Your task to perform on an android device: stop showing notifications on the lock screen Image 0: 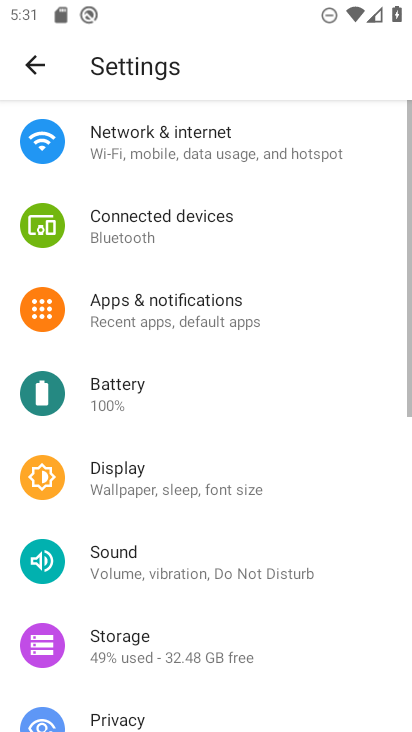
Step 0: press home button
Your task to perform on an android device: stop showing notifications on the lock screen Image 1: 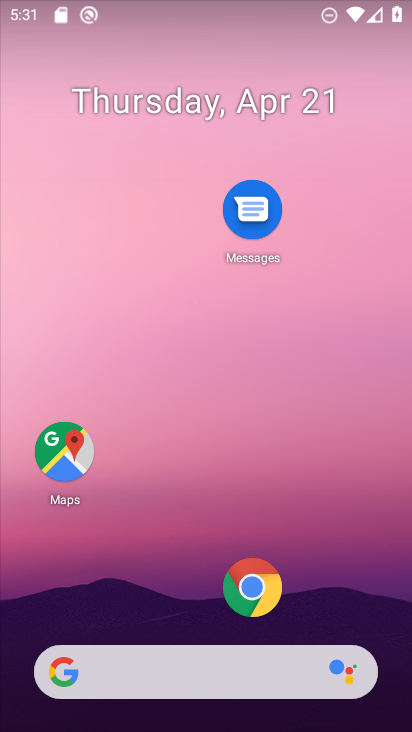
Step 1: drag from (201, 616) to (180, 222)
Your task to perform on an android device: stop showing notifications on the lock screen Image 2: 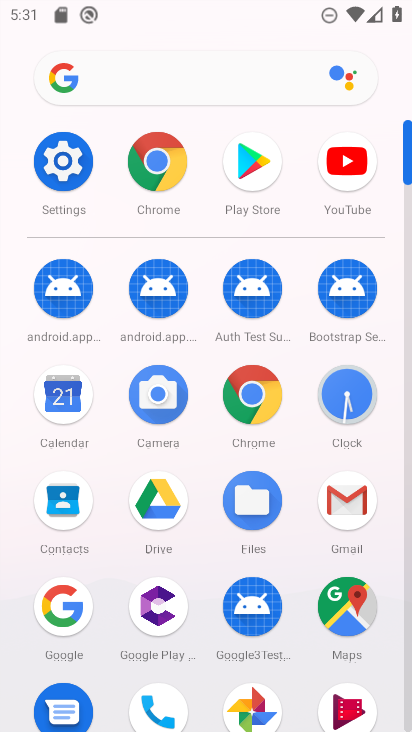
Step 2: click (56, 161)
Your task to perform on an android device: stop showing notifications on the lock screen Image 3: 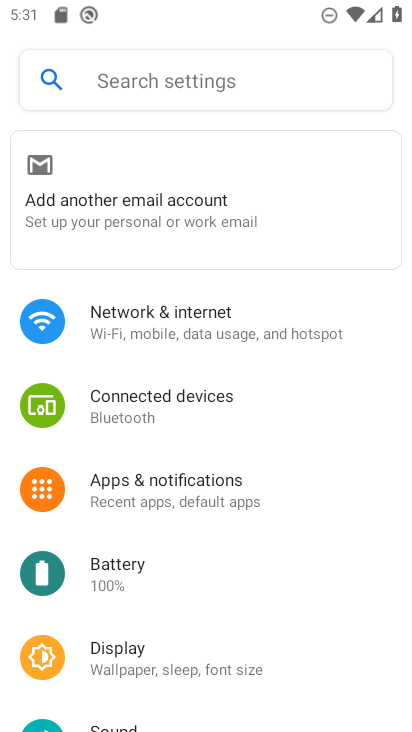
Step 3: click (132, 483)
Your task to perform on an android device: stop showing notifications on the lock screen Image 4: 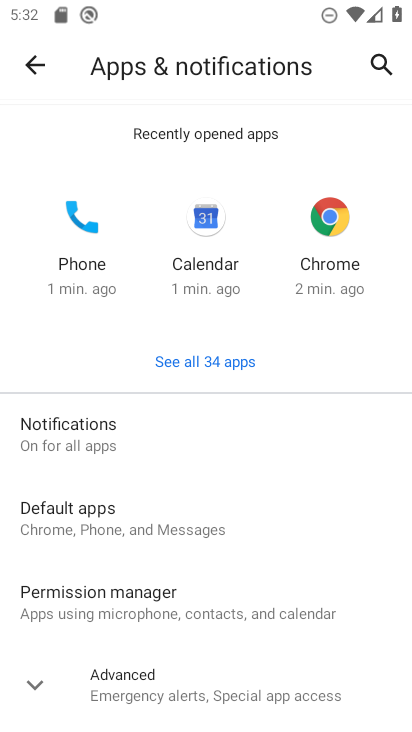
Step 4: click (145, 432)
Your task to perform on an android device: stop showing notifications on the lock screen Image 5: 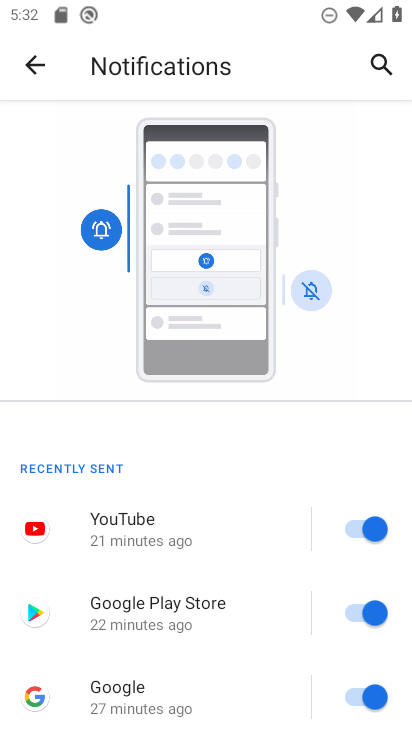
Step 5: drag from (231, 633) to (240, 279)
Your task to perform on an android device: stop showing notifications on the lock screen Image 6: 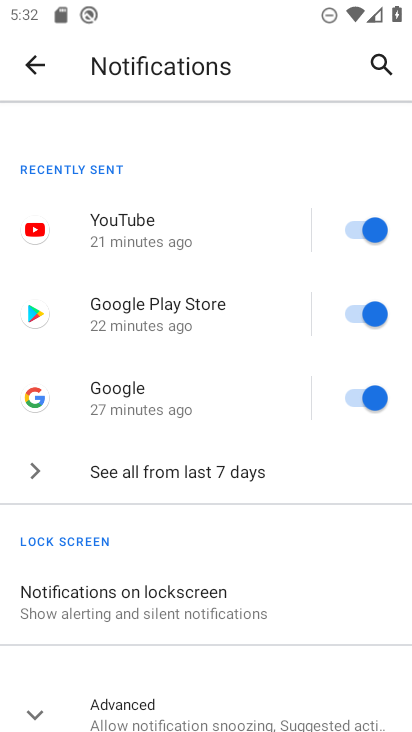
Step 6: click (175, 602)
Your task to perform on an android device: stop showing notifications on the lock screen Image 7: 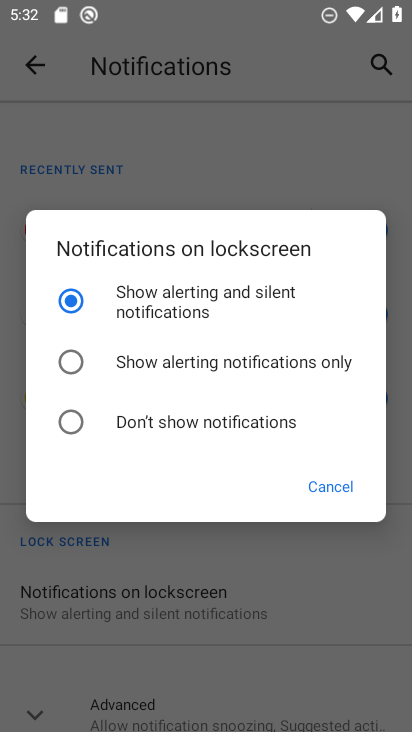
Step 7: click (70, 419)
Your task to perform on an android device: stop showing notifications on the lock screen Image 8: 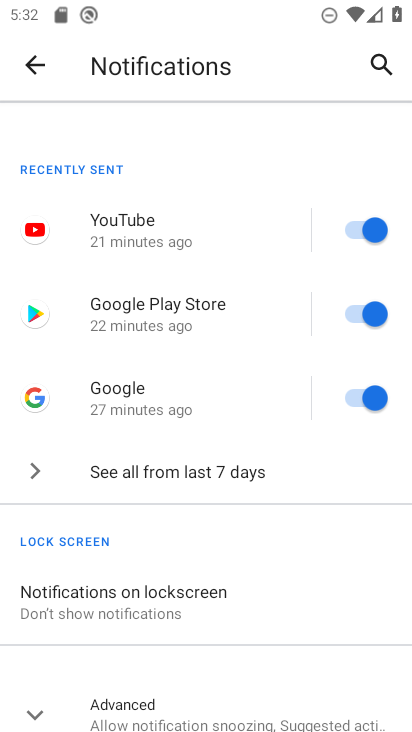
Step 8: task complete